Your task to perform on an android device: Clear all items from cart on bestbuy.com. Search for "jbl charge 4" on bestbuy.com, select the first entry, add it to the cart, then select checkout. Image 0: 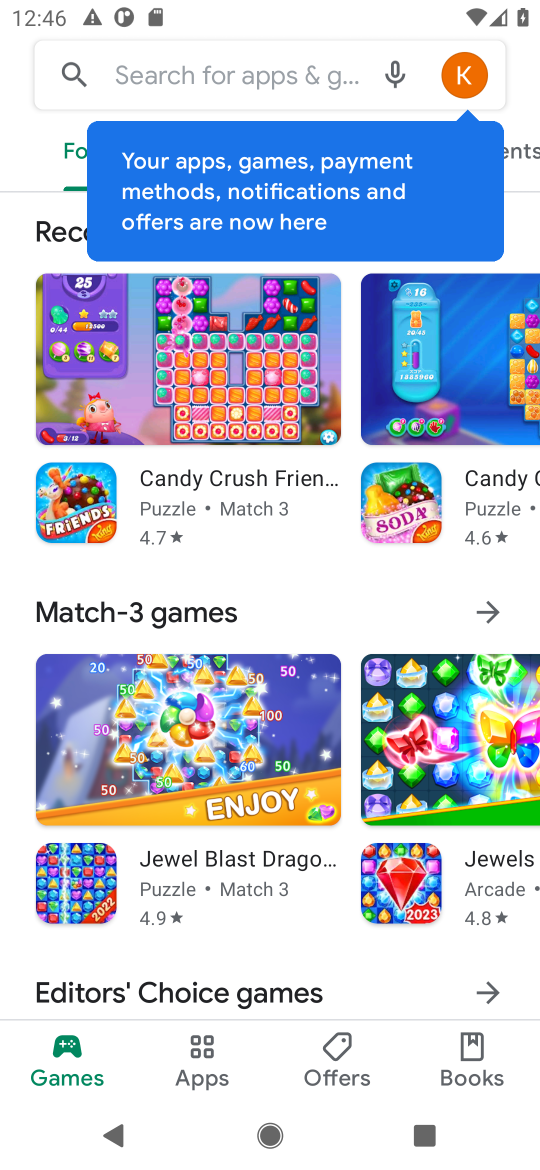
Step 0: press home button
Your task to perform on an android device: Clear all items from cart on bestbuy.com. Search for "jbl charge 4" on bestbuy.com, select the first entry, add it to the cart, then select checkout. Image 1: 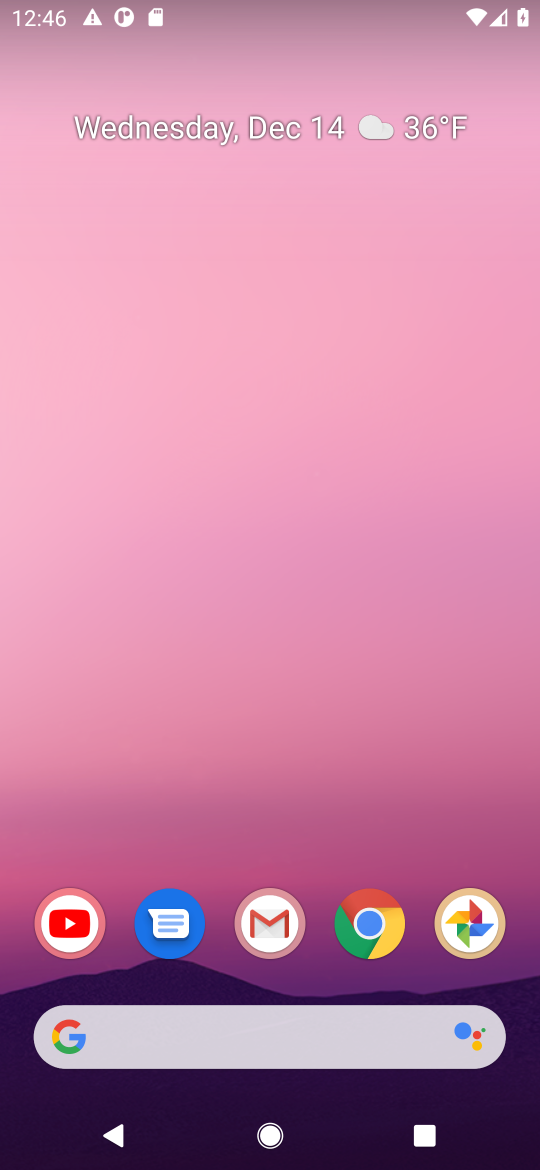
Step 1: click (361, 916)
Your task to perform on an android device: Clear all items from cart on bestbuy.com. Search for "jbl charge 4" on bestbuy.com, select the first entry, add it to the cart, then select checkout. Image 2: 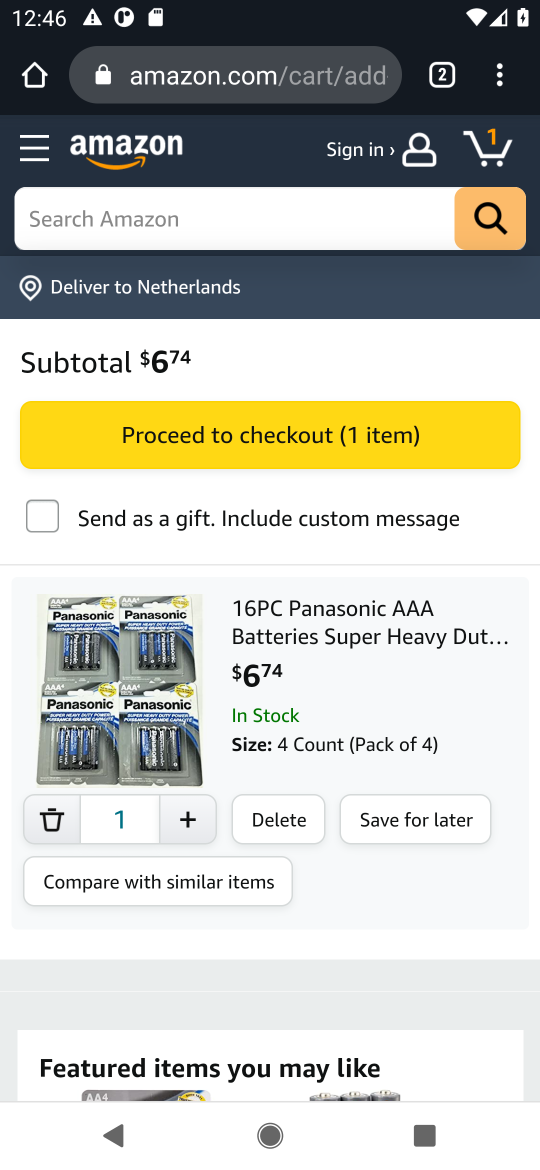
Step 2: click (266, 239)
Your task to perform on an android device: Clear all items from cart on bestbuy.com. Search for "jbl charge 4" on bestbuy.com, select the first entry, add it to the cart, then select checkout. Image 3: 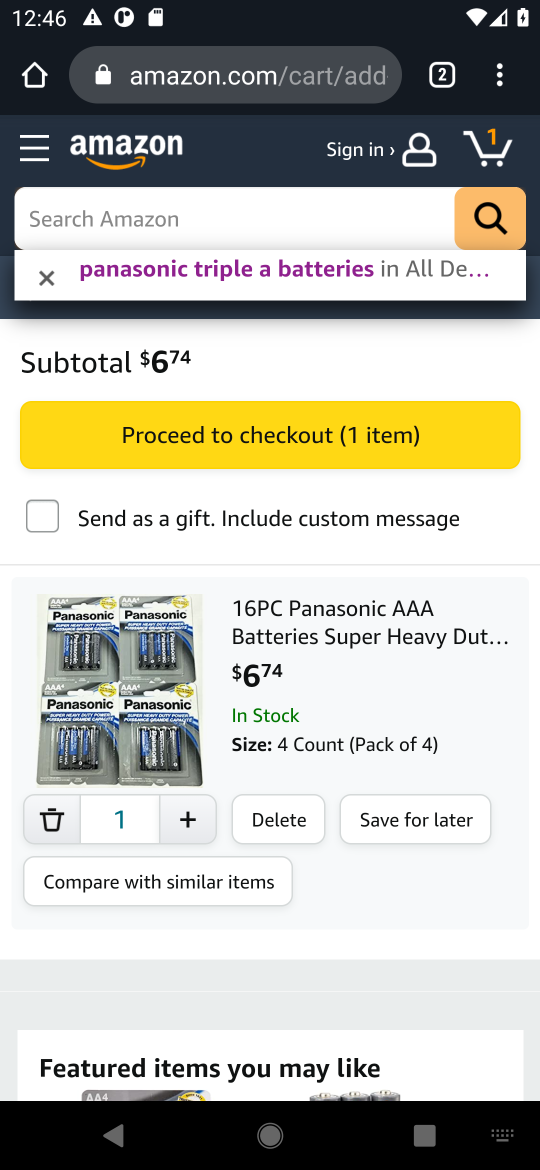
Step 3: click (187, 89)
Your task to perform on an android device: Clear all items from cart on bestbuy.com. Search for "jbl charge 4" on bestbuy.com, select the first entry, add it to the cart, then select checkout. Image 4: 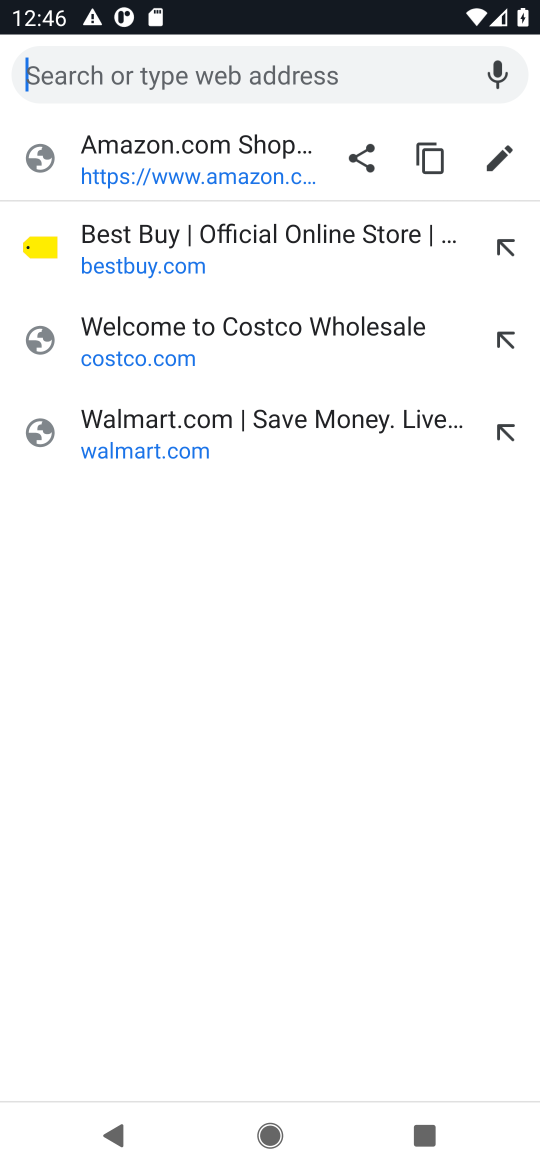
Step 4: click (261, 255)
Your task to perform on an android device: Clear all items from cart on bestbuy.com. Search for "jbl charge 4" on bestbuy.com, select the first entry, add it to the cart, then select checkout. Image 5: 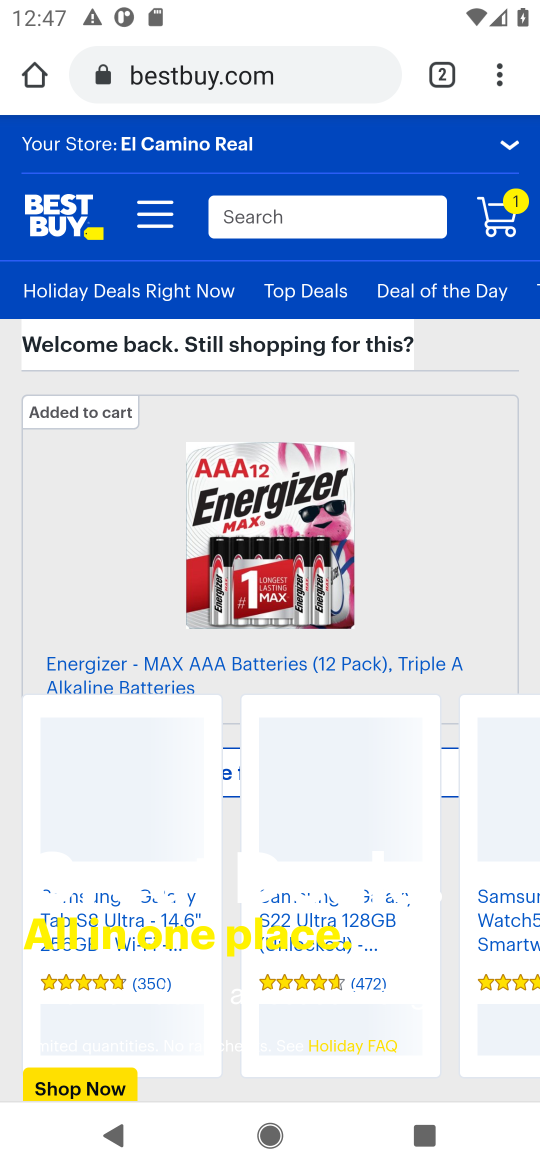
Step 5: click (247, 219)
Your task to perform on an android device: Clear all items from cart on bestbuy.com. Search for "jbl charge 4" on bestbuy.com, select the first entry, add it to the cart, then select checkout. Image 6: 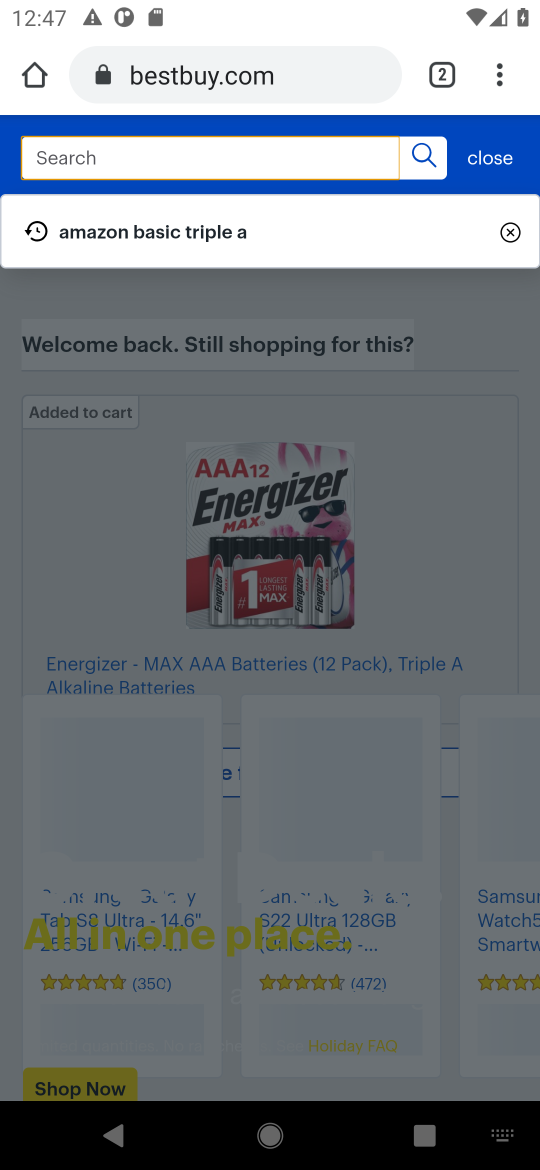
Step 6: type "jbl charge 4"
Your task to perform on an android device: Clear all items from cart on bestbuy.com. Search for "jbl charge 4" on bestbuy.com, select the first entry, add it to the cart, then select checkout. Image 7: 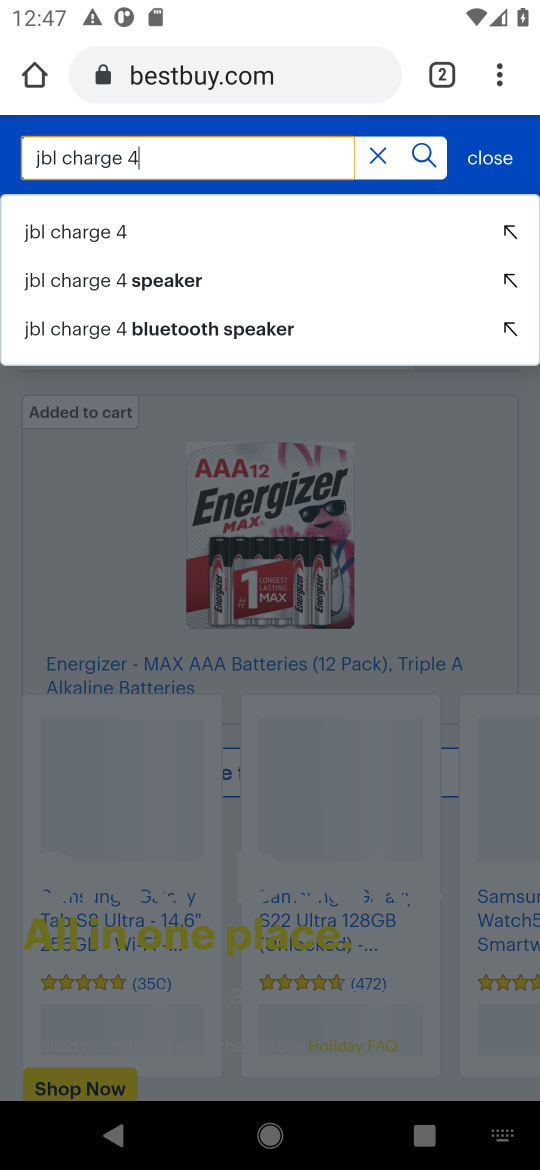
Step 7: click (425, 162)
Your task to perform on an android device: Clear all items from cart on bestbuy.com. Search for "jbl charge 4" on bestbuy.com, select the first entry, add it to the cart, then select checkout. Image 8: 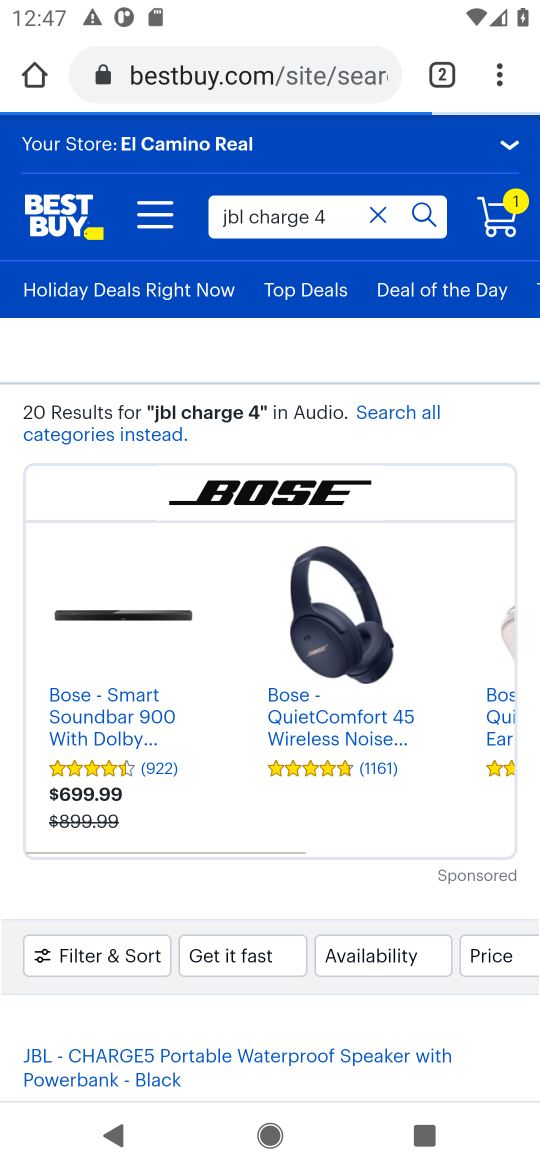
Step 8: drag from (411, 1020) to (384, 681)
Your task to perform on an android device: Clear all items from cart on bestbuy.com. Search for "jbl charge 4" on bestbuy.com, select the first entry, add it to the cart, then select checkout. Image 9: 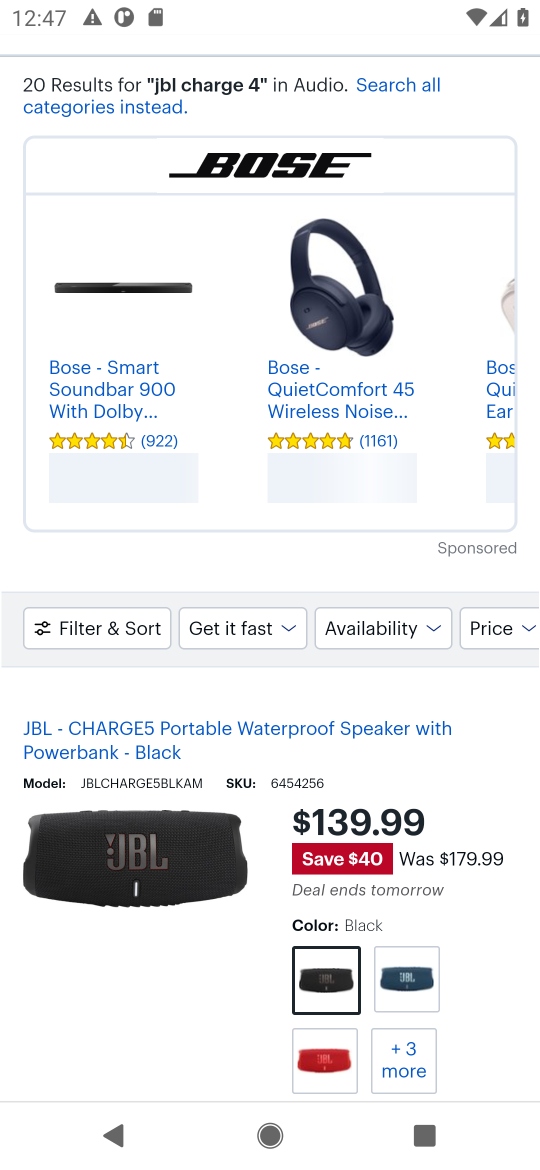
Step 9: drag from (227, 994) to (202, 618)
Your task to perform on an android device: Clear all items from cart on bestbuy.com. Search for "jbl charge 4" on bestbuy.com, select the first entry, add it to the cart, then select checkout. Image 10: 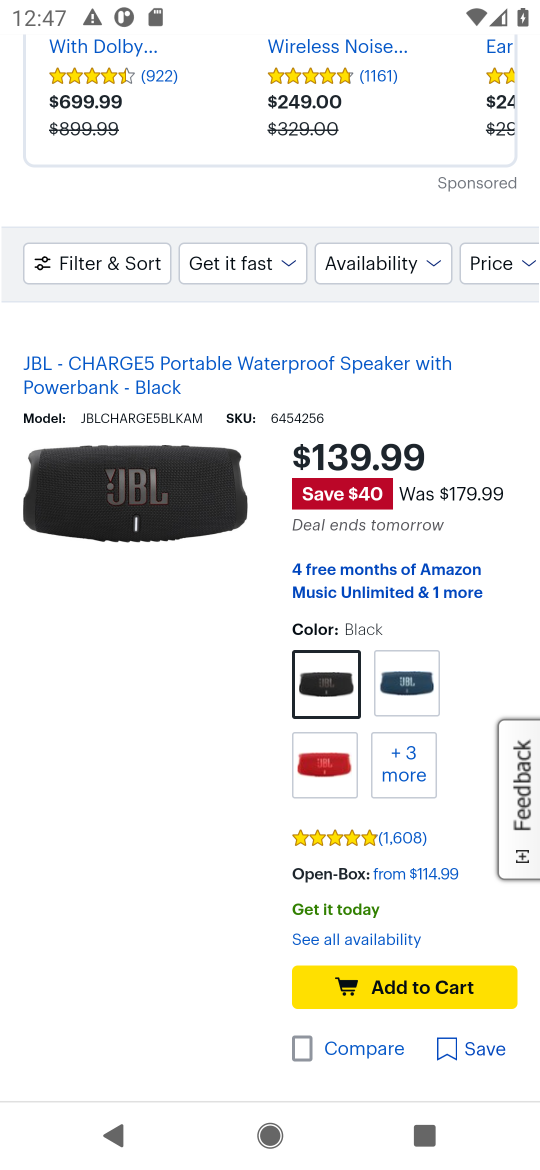
Step 10: click (318, 992)
Your task to perform on an android device: Clear all items from cart on bestbuy.com. Search for "jbl charge 4" on bestbuy.com, select the first entry, add it to the cart, then select checkout. Image 11: 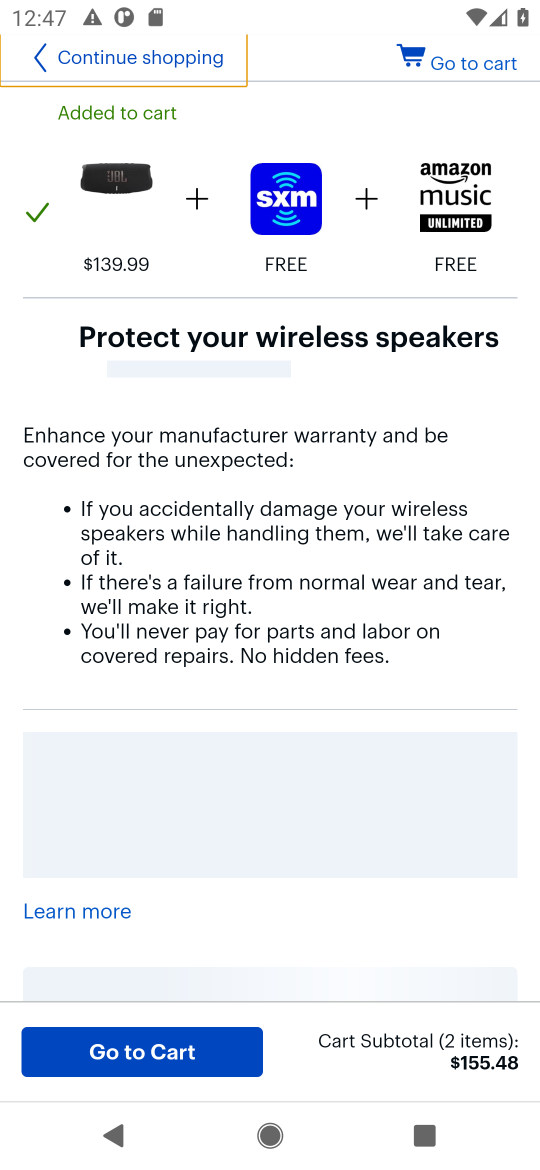
Step 11: task complete